Your task to perform on an android device: toggle notification dots Image 0: 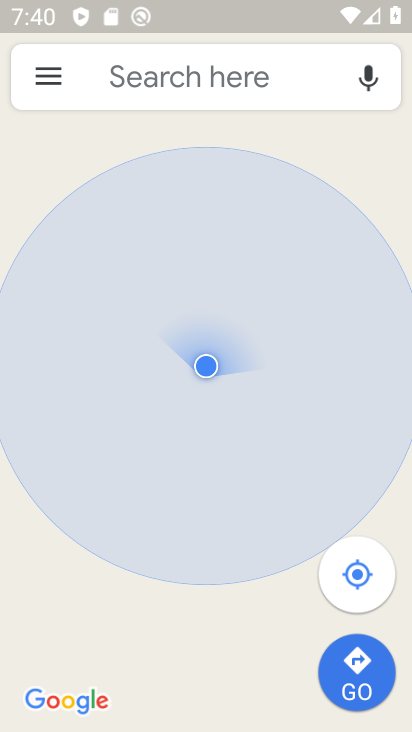
Step 0: press home button
Your task to perform on an android device: toggle notification dots Image 1: 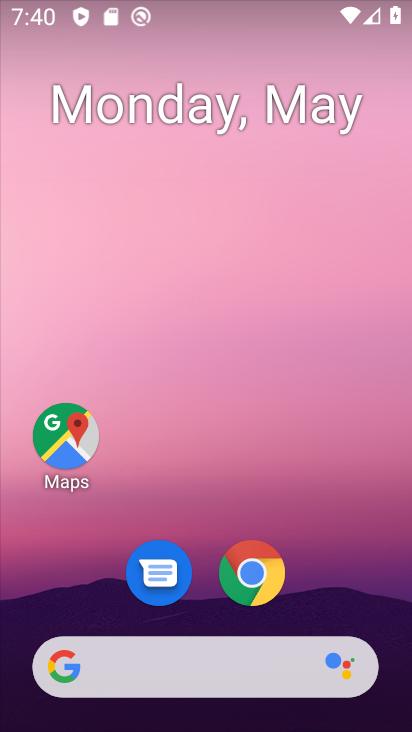
Step 1: drag from (343, 589) to (300, 23)
Your task to perform on an android device: toggle notification dots Image 2: 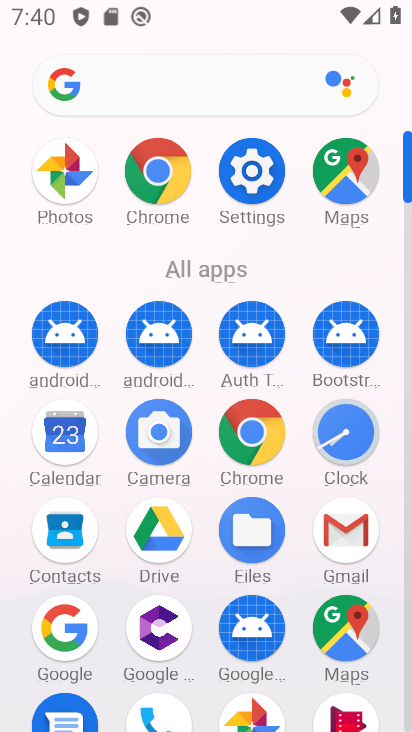
Step 2: click (255, 157)
Your task to perform on an android device: toggle notification dots Image 3: 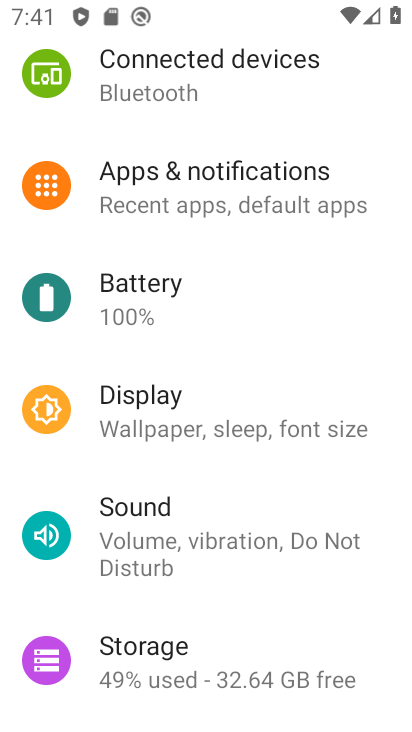
Step 3: click (255, 213)
Your task to perform on an android device: toggle notification dots Image 4: 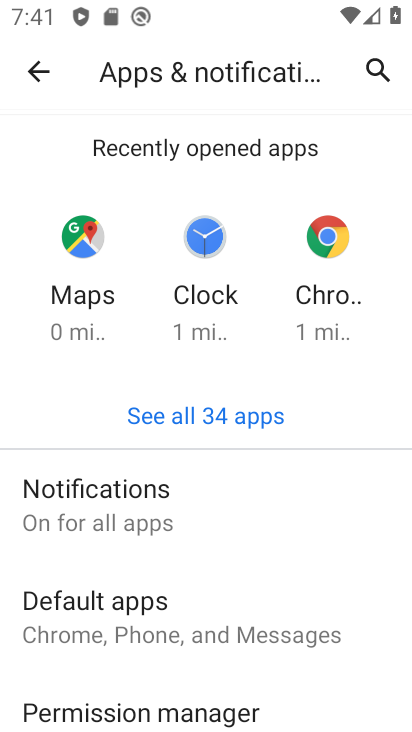
Step 4: drag from (165, 559) to (246, 117)
Your task to perform on an android device: toggle notification dots Image 5: 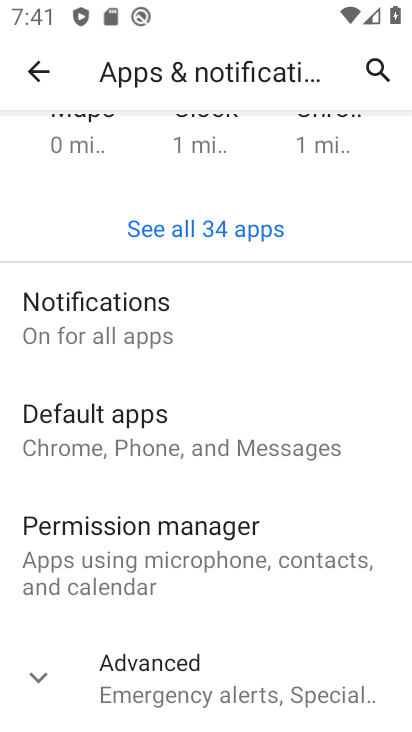
Step 5: click (190, 312)
Your task to perform on an android device: toggle notification dots Image 6: 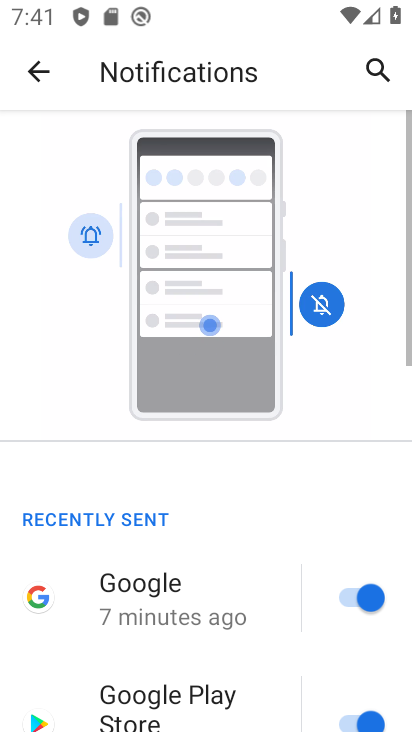
Step 6: drag from (203, 698) to (271, 96)
Your task to perform on an android device: toggle notification dots Image 7: 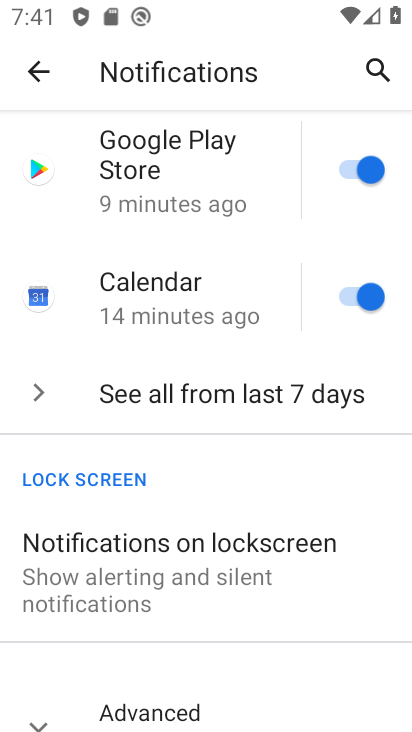
Step 7: drag from (275, 537) to (304, 316)
Your task to perform on an android device: toggle notification dots Image 8: 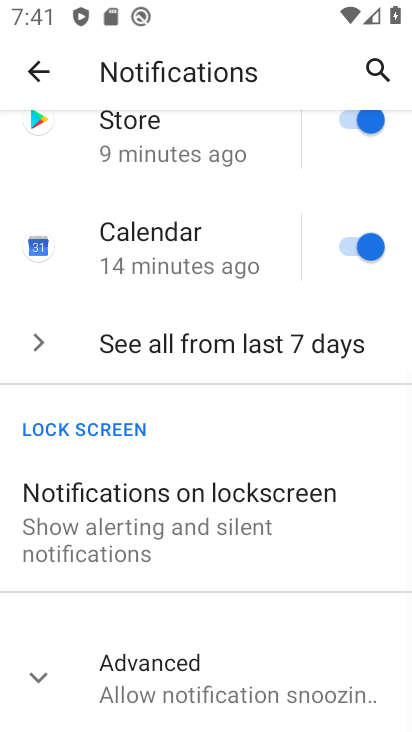
Step 8: click (264, 670)
Your task to perform on an android device: toggle notification dots Image 9: 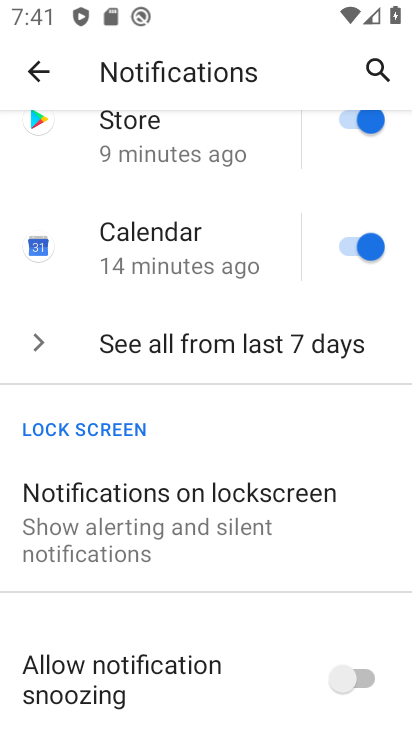
Step 9: drag from (224, 685) to (305, 180)
Your task to perform on an android device: toggle notification dots Image 10: 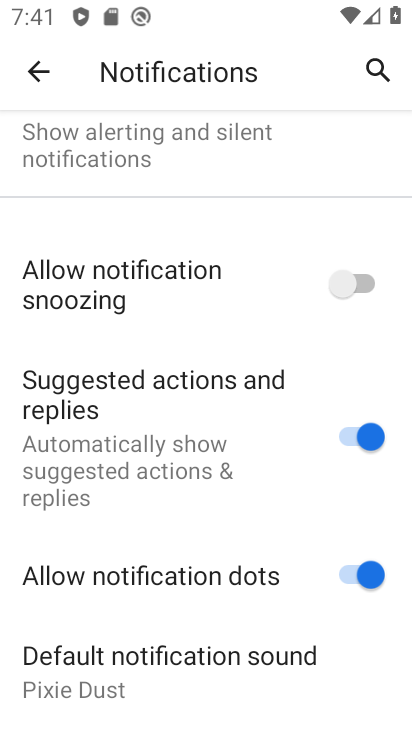
Step 10: click (219, 606)
Your task to perform on an android device: toggle notification dots Image 11: 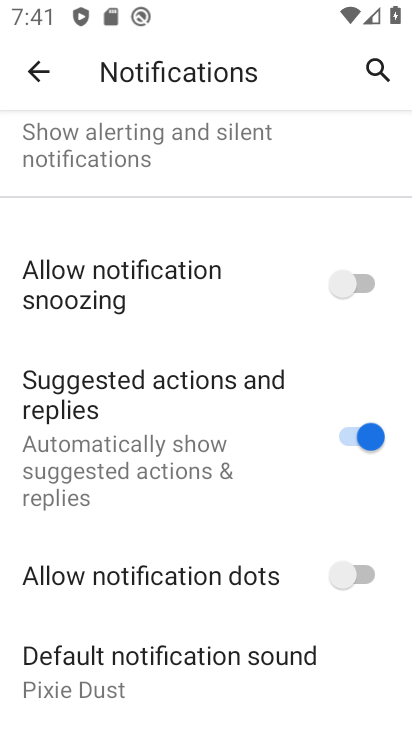
Step 11: task complete